Your task to perform on an android device: star an email in the gmail app Image 0: 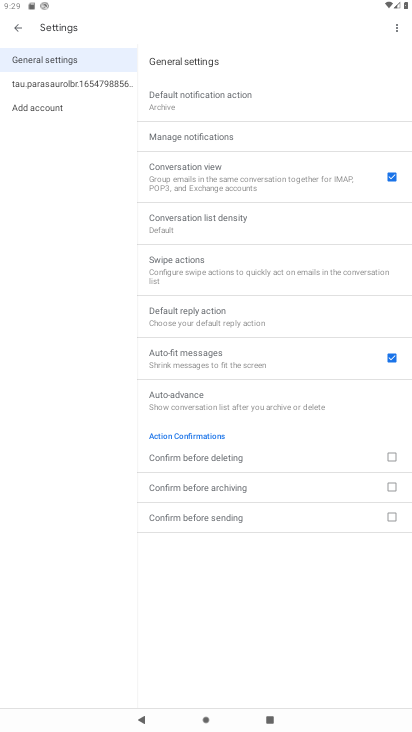
Step 0: press home button
Your task to perform on an android device: star an email in the gmail app Image 1: 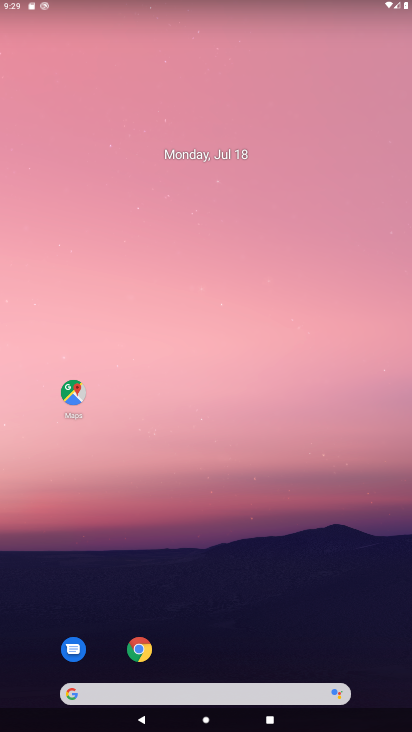
Step 1: drag from (190, 646) to (307, 96)
Your task to perform on an android device: star an email in the gmail app Image 2: 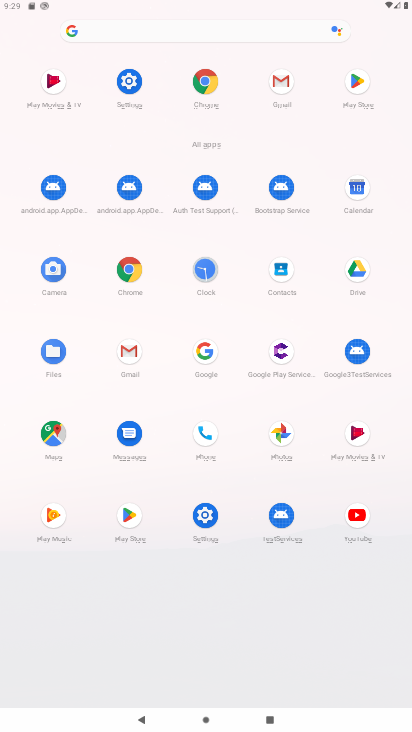
Step 2: click (286, 89)
Your task to perform on an android device: star an email in the gmail app Image 3: 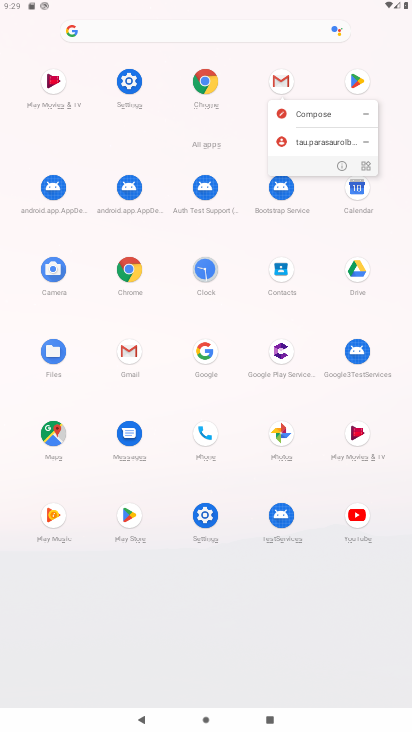
Step 3: click (286, 89)
Your task to perform on an android device: star an email in the gmail app Image 4: 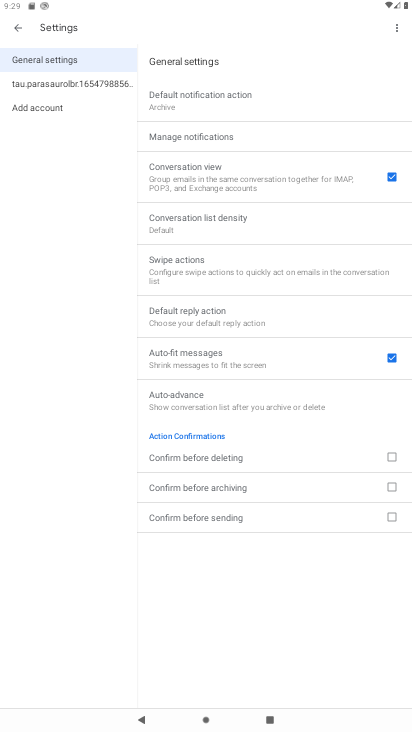
Step 4: click (16, 32)
Your task to perform on an android device: star an email in the gmail app Image 5: 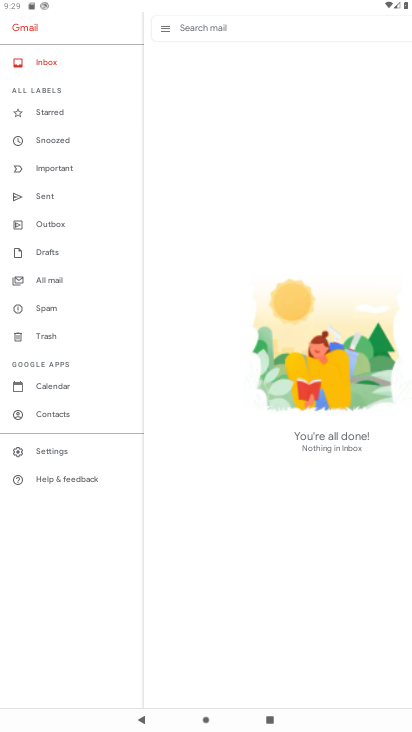
Step 5: click (61, 59)
Your task to perform on an android device: star an email in the gmail app Image 6: 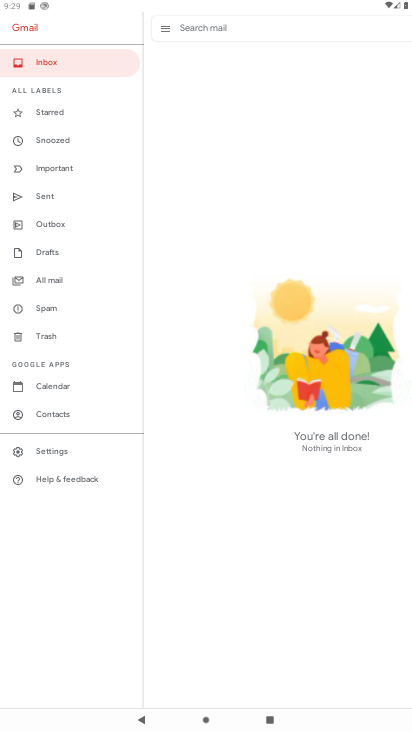
Step 6: task complete